Your task to perform on an android device: turn on airplane mode Image 0: 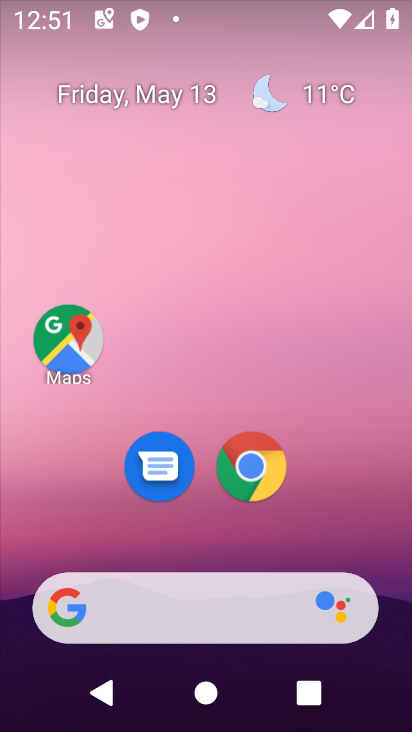
Step 0: drag from (333, 457) to (348, 76)
Your task to perform on an android device: turn on airplane mode Image 1: 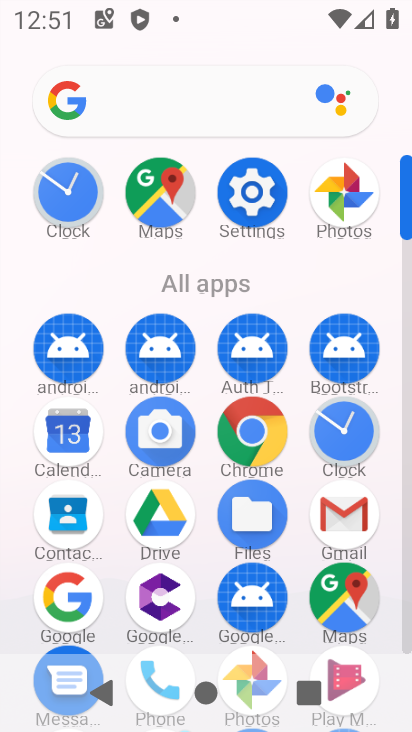
Step 1: click (248, 192)
Your task to perform on an android device: turn on airplane mode Image 2: 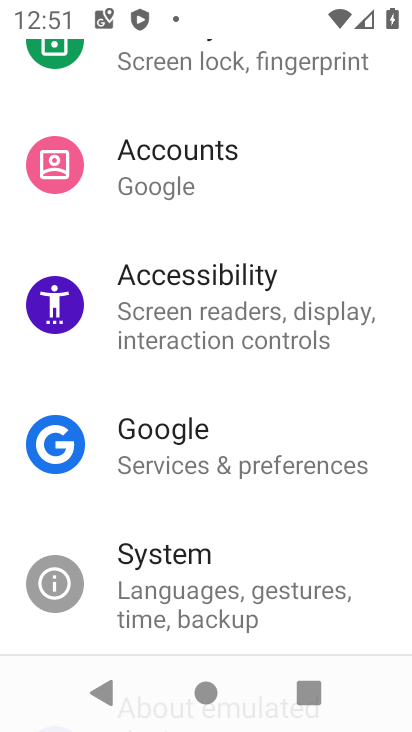
Step 2: drag from (203, 286) to (218, 714)
Your task to perform on an android device: turn on airplane mode Image 3: 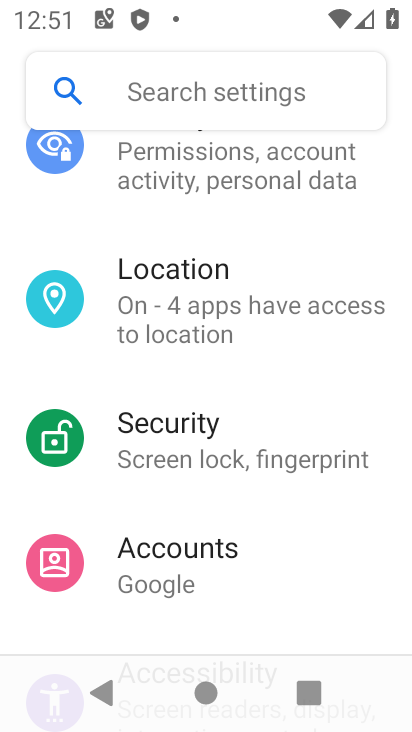
Step 3: drag from (261, 247) to (287, 600)
Your task to perform on an android device: turn on airplane mode Image 4: 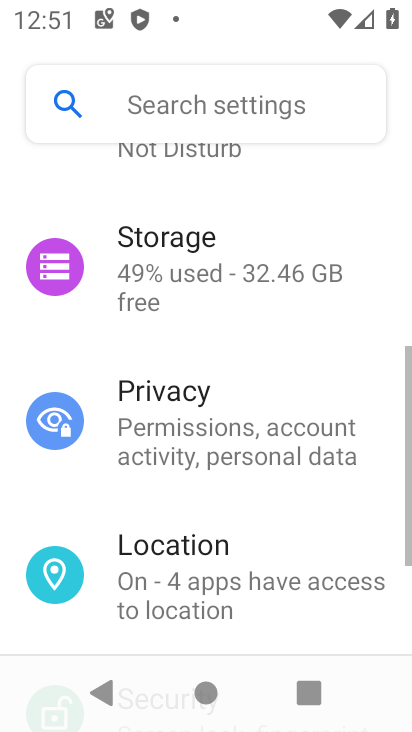
Step 4: drag from (274, 265) to (323, 562)
Your task to perform on an android device: turn on airplane mode Image 5: 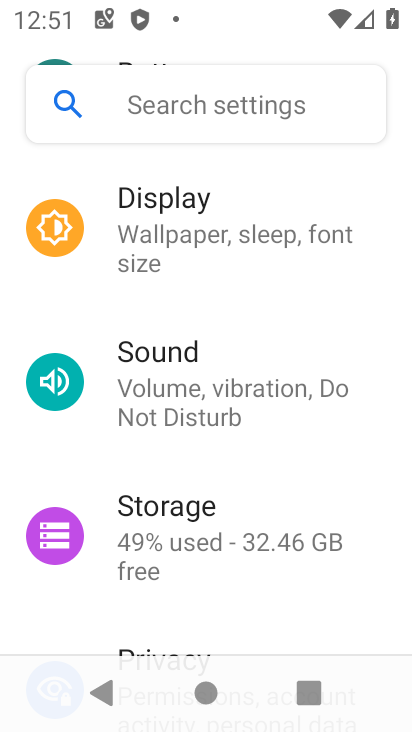
Step 5: drag from (270, 274) to (263, 569)
Your task to perform on an android device: turn on airplane mode Image 6: 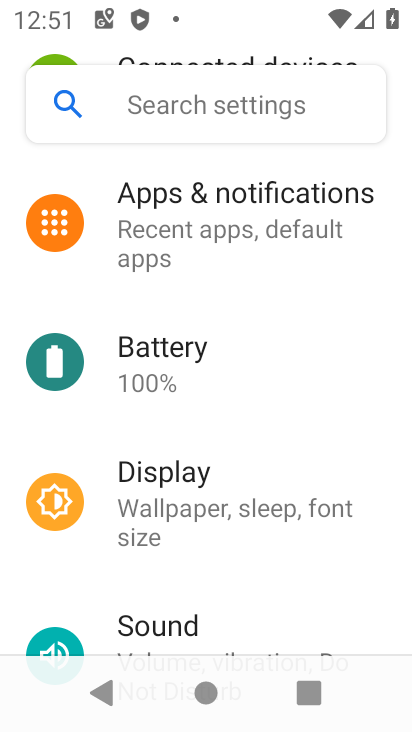
Step 6: drag from (300, 242) to (324, 680)
Your task to perform on an android device: turn on airplane mode Image 7: 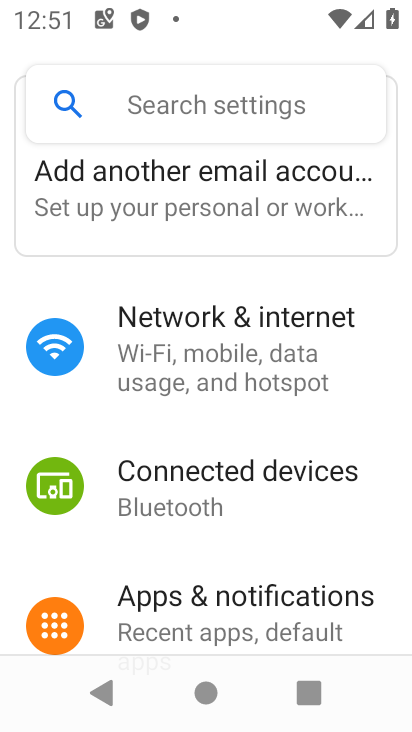
Step 7: drag from (286, 464) to (278, 626)
Your task to perform on an android device: turn on airplane mode Image 8: 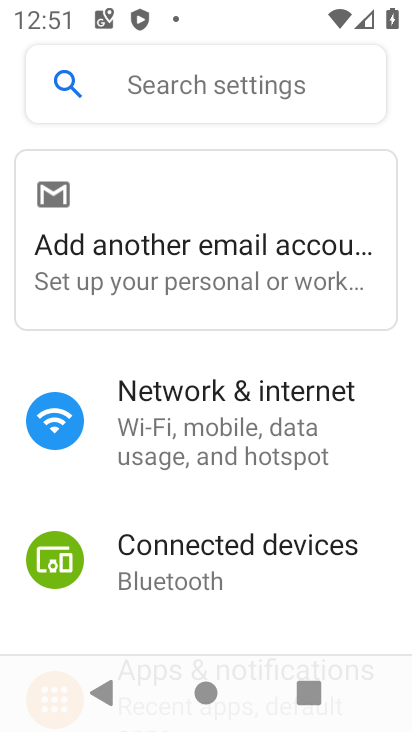
Step 8: click (227, 401)
Your task to perform on an android device: turn on airplane mode Image 9: 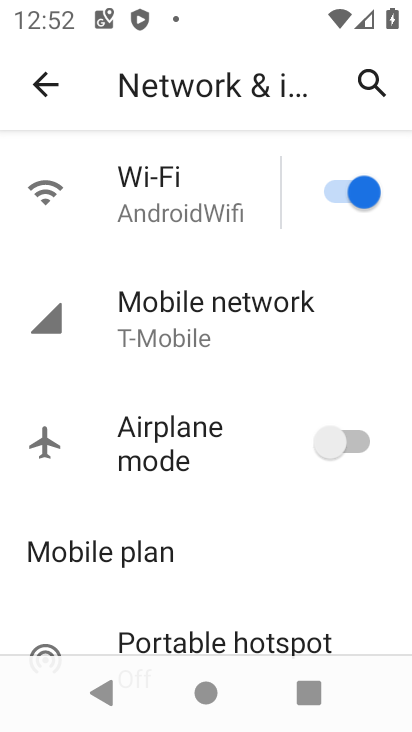
Step 9: click (346, 448)
Your task to perform on an android device: turn on airplane mode Image 10: 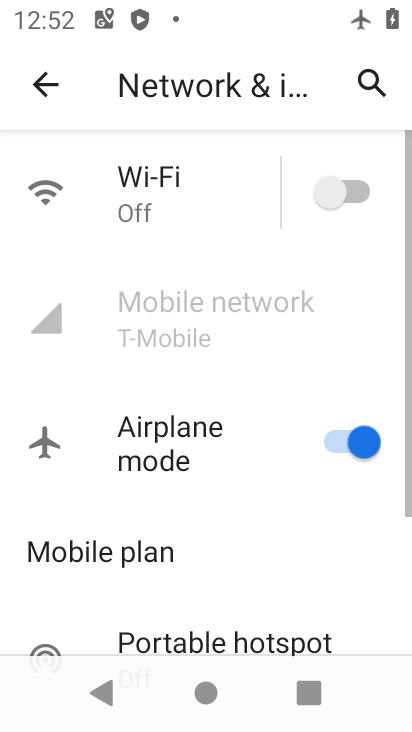
Step 10: task complete